Your task to perform on an android device: Open the phone app and click the voicemail tab. Image 0: 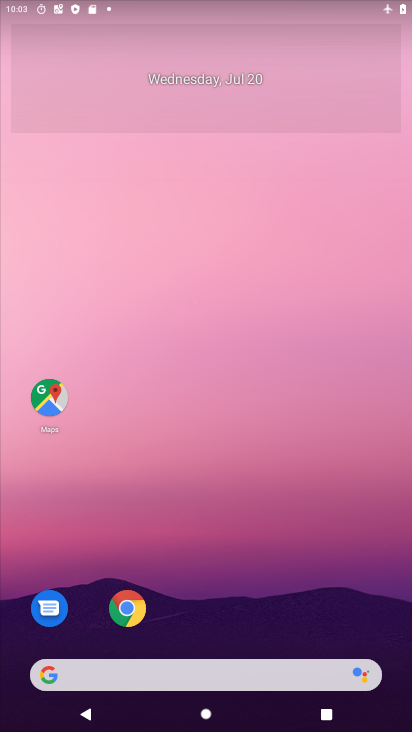
Step 0: drag from (300, 643) to (354, 115)
Your task to perform on an android device: Open the phone app and click the voicemail tab. Image 1: 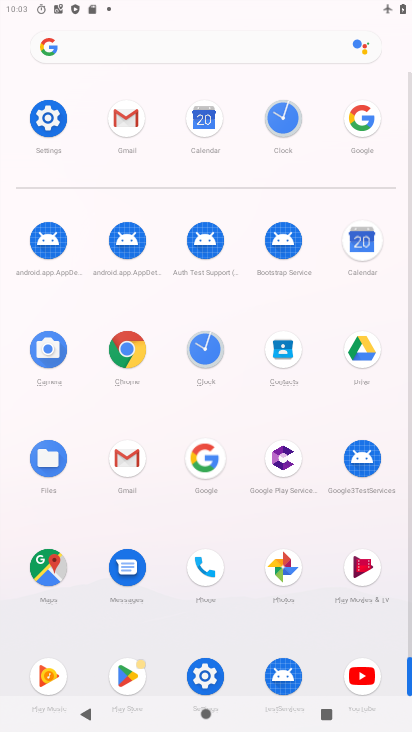
Step 1: click (201, 561)
Your task to perform on an android device: Open the phone app and click the voicemail tab. Image 2: 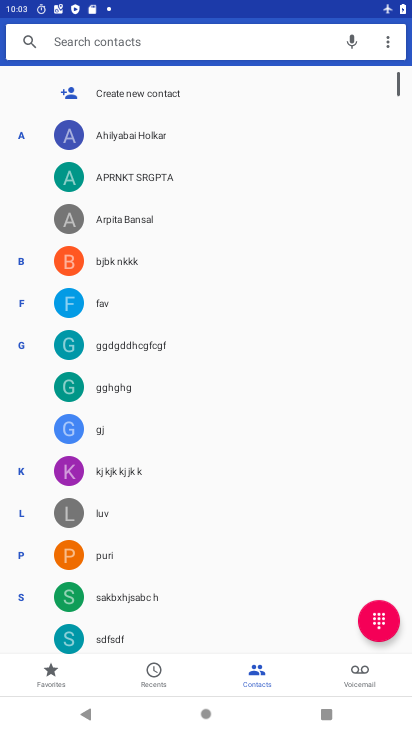
Step 2: click (355, 674)
Your task to perform on an android device: Open the phone app and click the voicemail tab. Image 3: 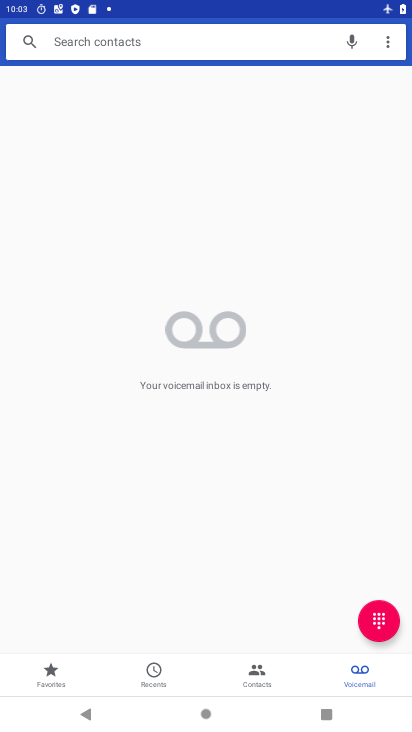
Step 3: task complete